Your task to perform on an android device: open the mobile data screen to see how much data has been used Image 0: 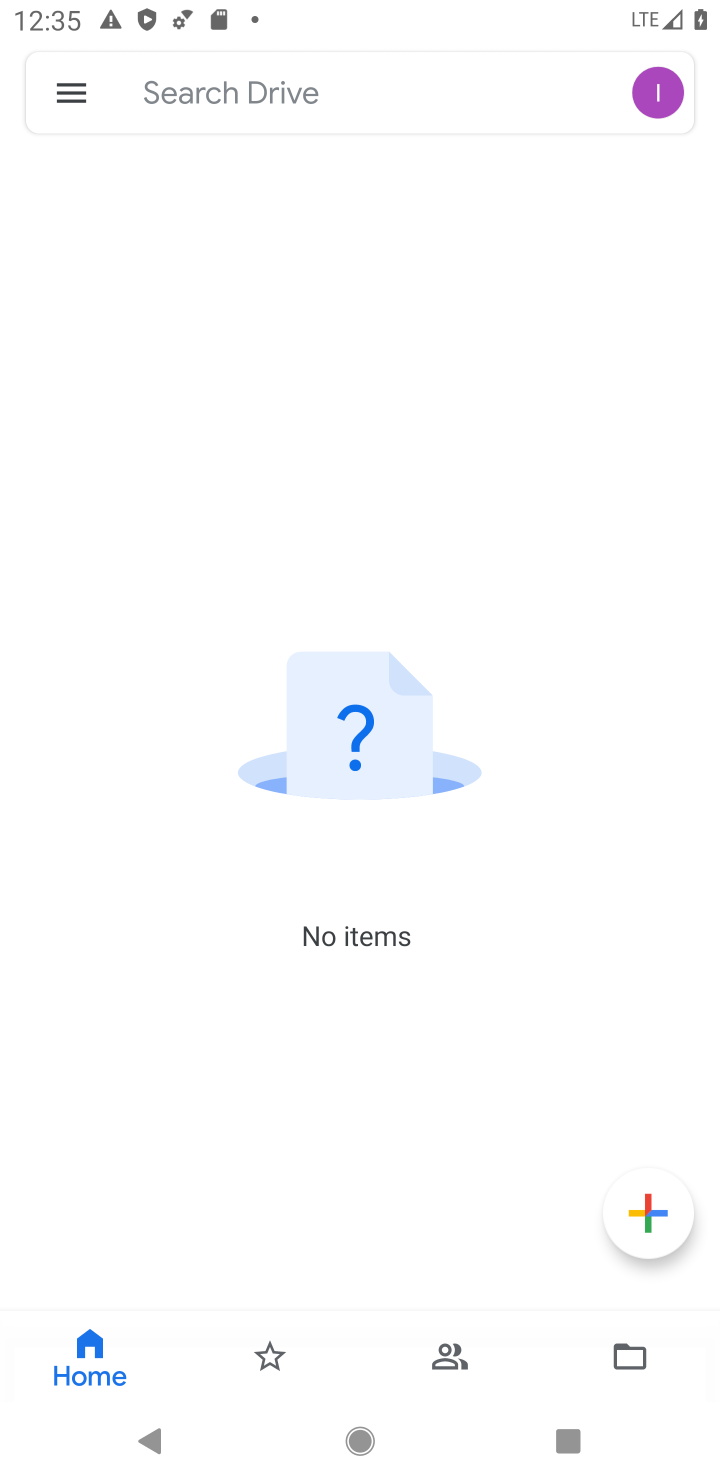
Step 0: click (349, 1444)
Your task to perform on an android device: open the mobile data screen to see how much data has been used Image 1: 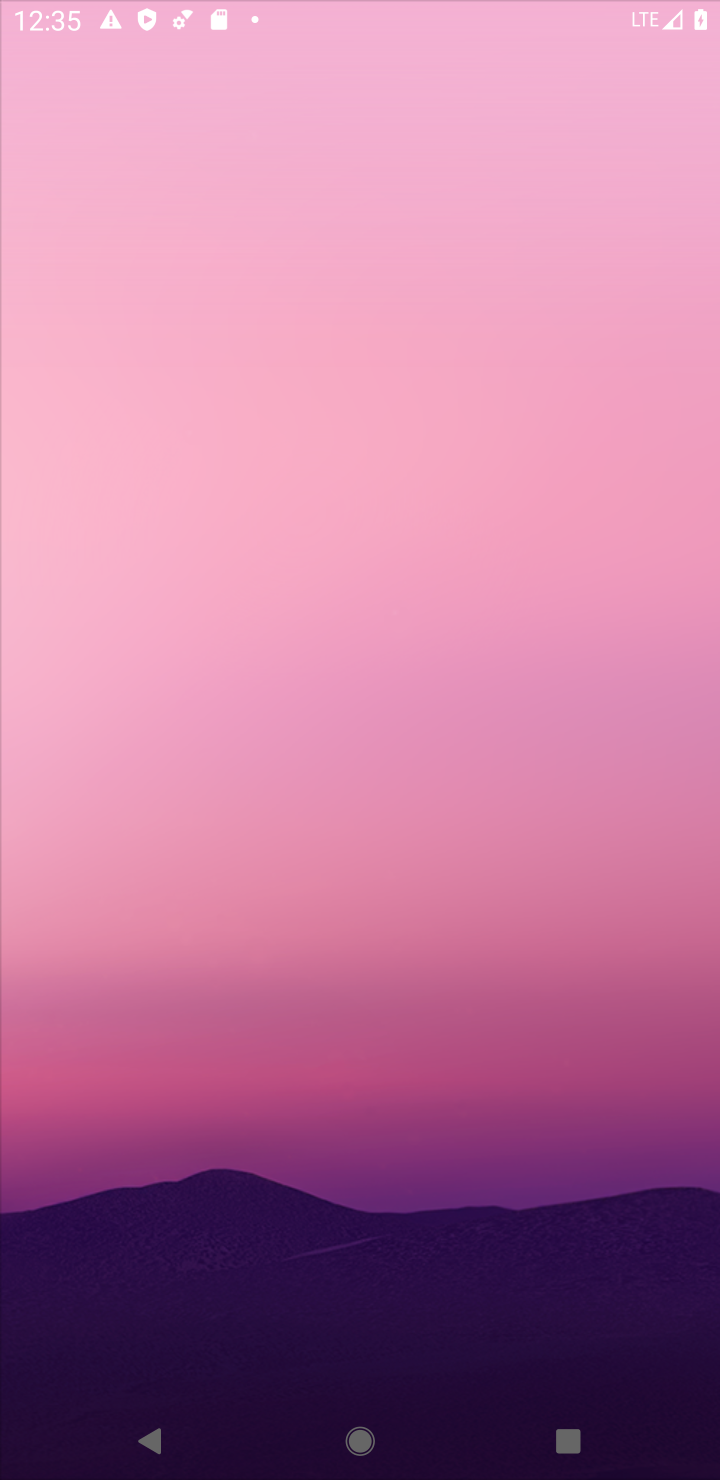
Step 1: click (360, 1445)
Your task to perform on an android device: open the mobile data screen to see how much data has been used Image 2: 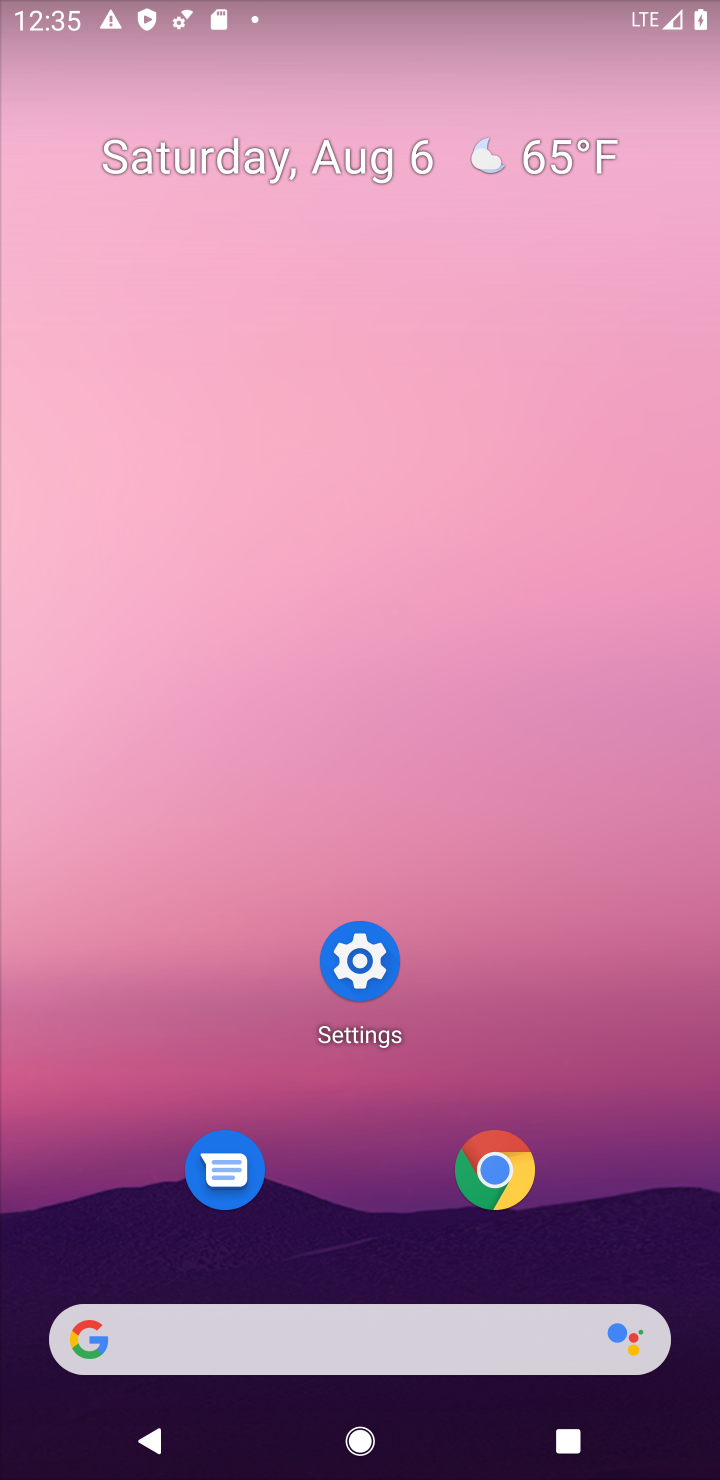
Step 2: click (355, 951)
Your task to perform on an android device: open the mobile data screen to see how much data has been used Image 3: 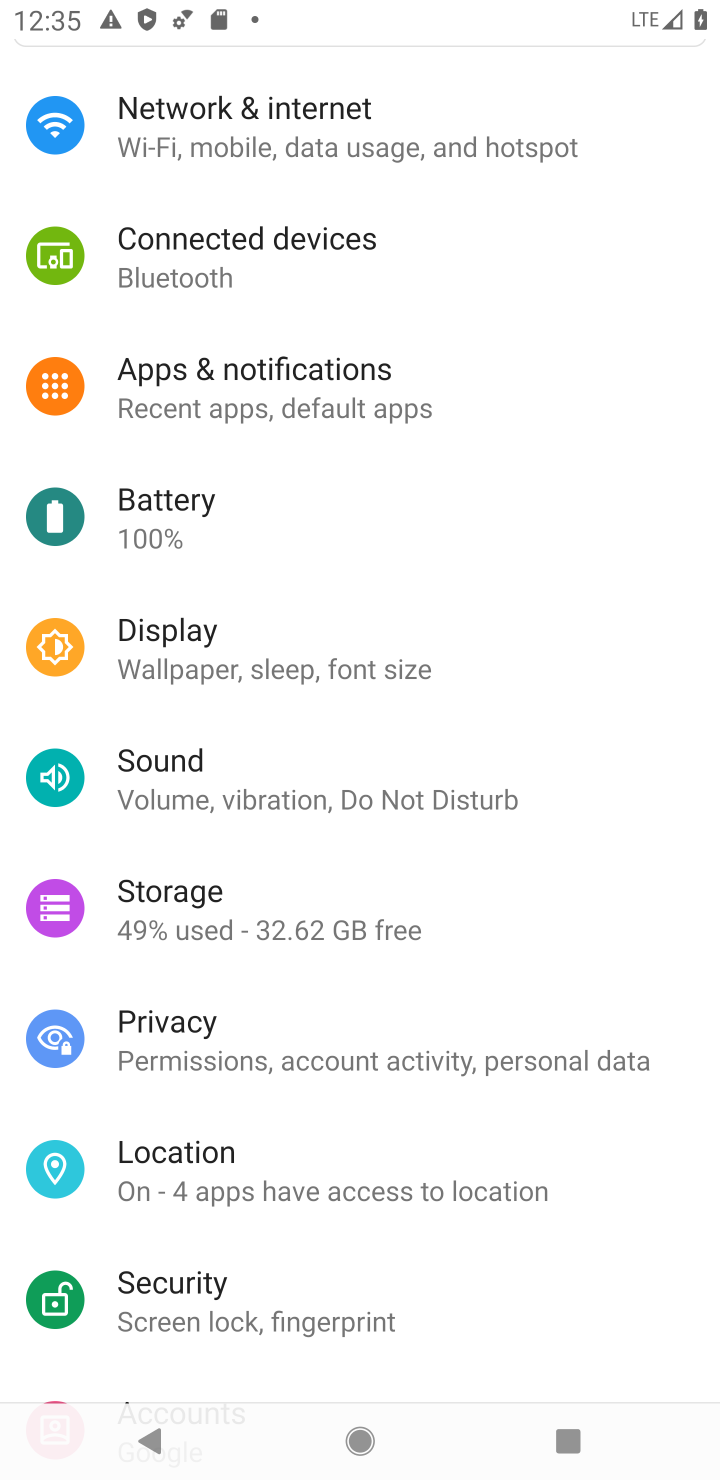
Step 3: click (374, 121)
Your task to perform on an android device: open the mobile data screen to see how much data has been used Image 4: 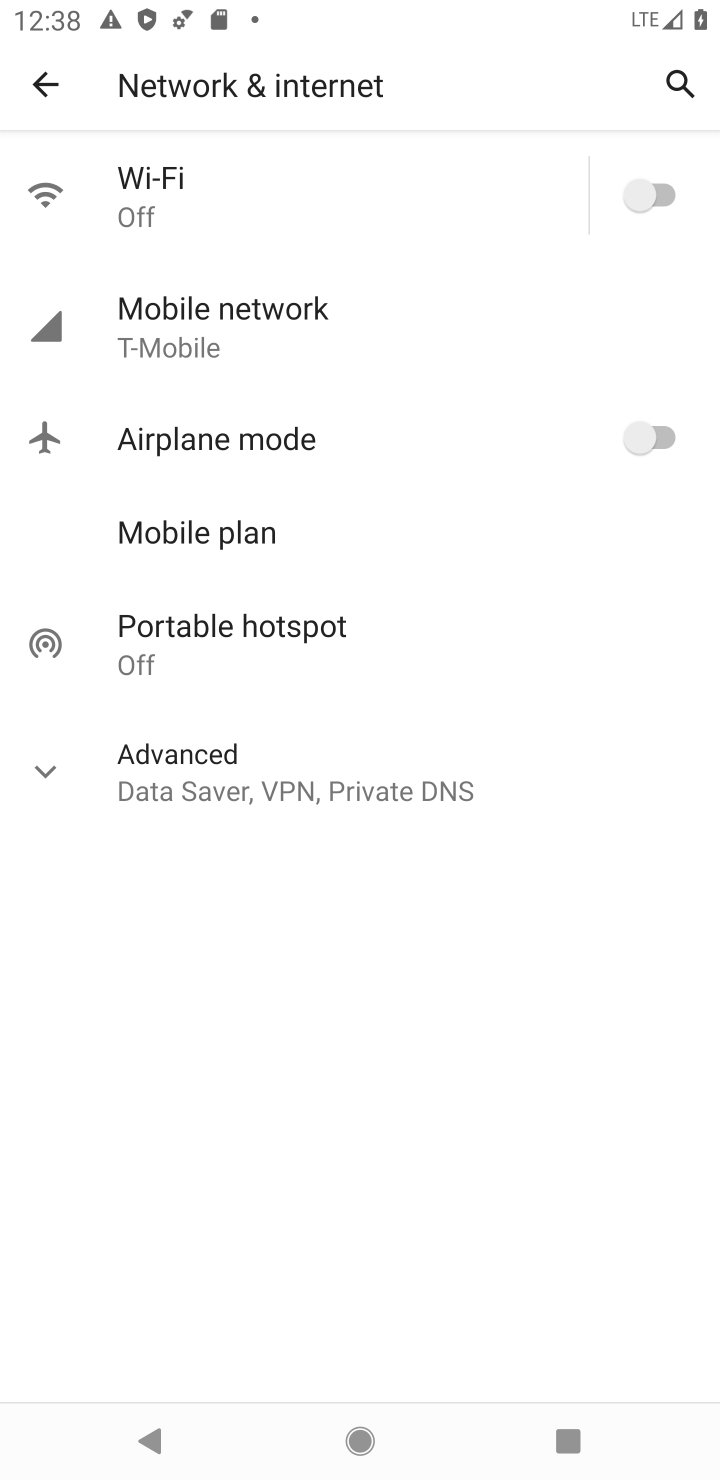
Step 4: click (193, 540)
Your task to perform on an android device: open the mobile data screen to see how much data has been used Image 5: 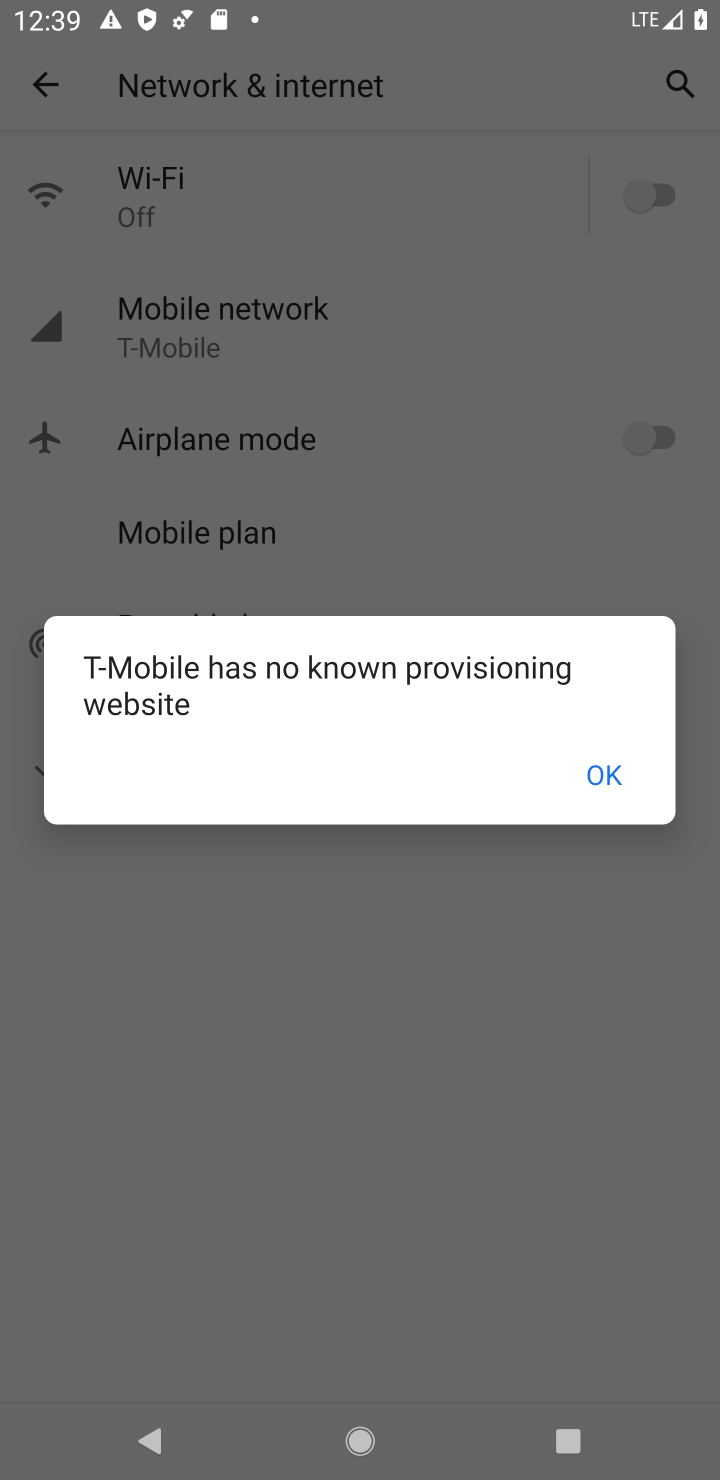
Step 5: click (602, 755)
Your task to perform on an android device: open the mobile data screen to see how much data has been used Image 6: 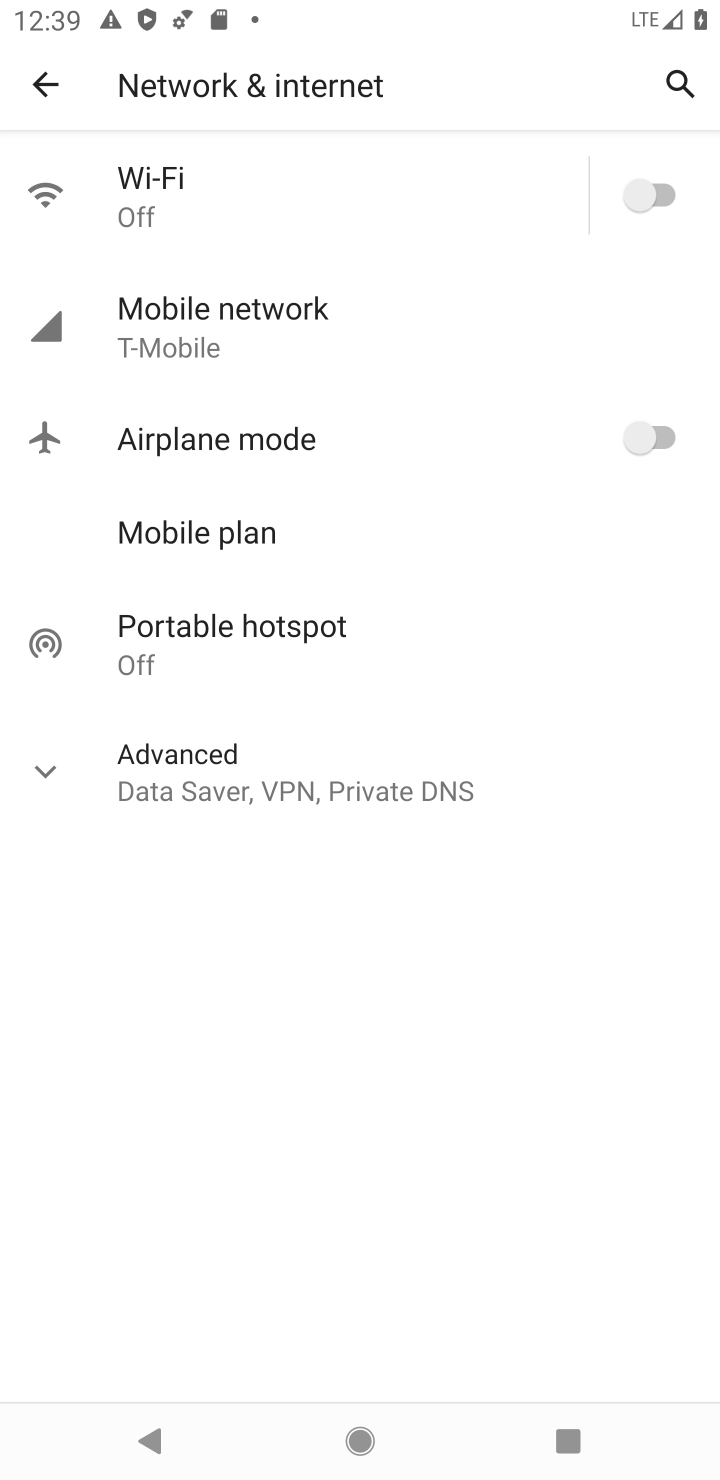
Step 6: click (267, 323)
Your task to perform on an android device: open the mobile data screen to see how much data has been used Image 7: 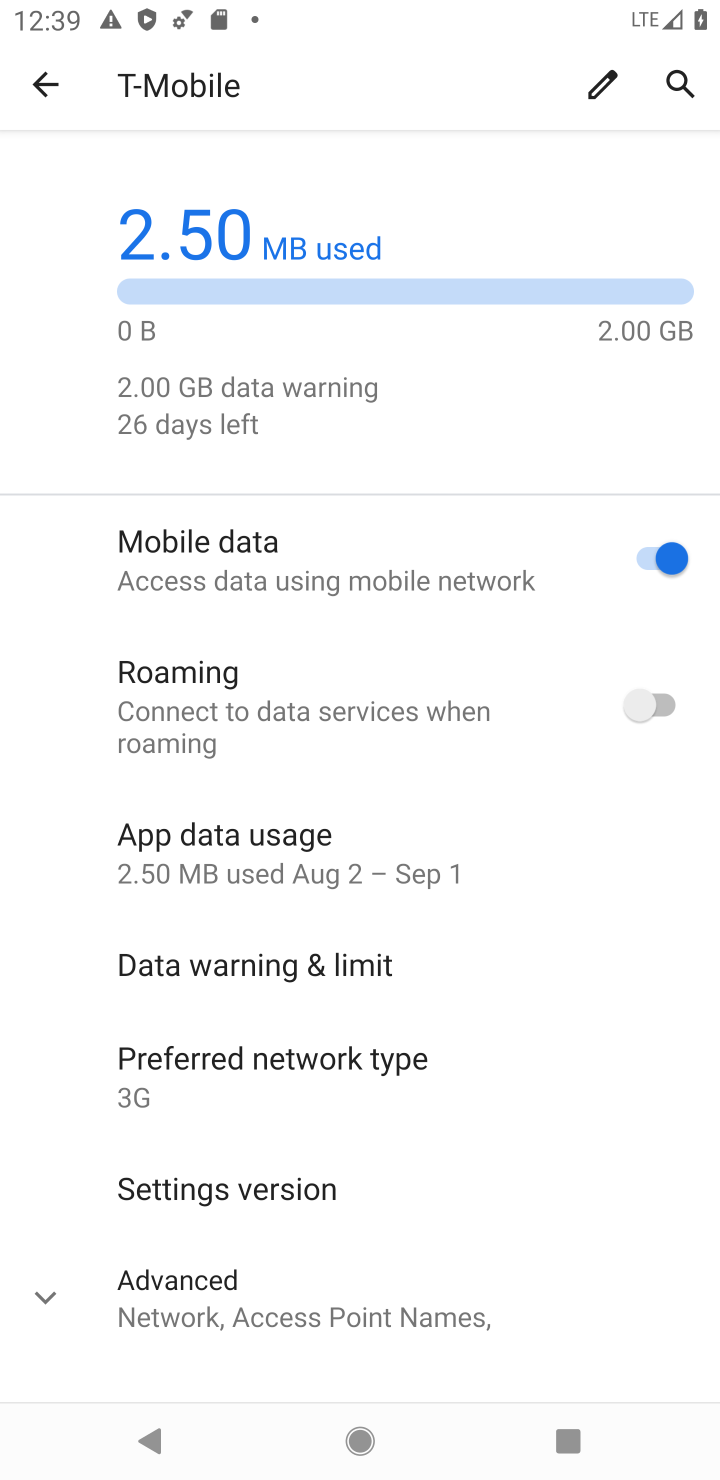
Step 7: click (324, 272)
Your task to perform on an android device: open the mobile data screen to see how much data has been used Image 8: 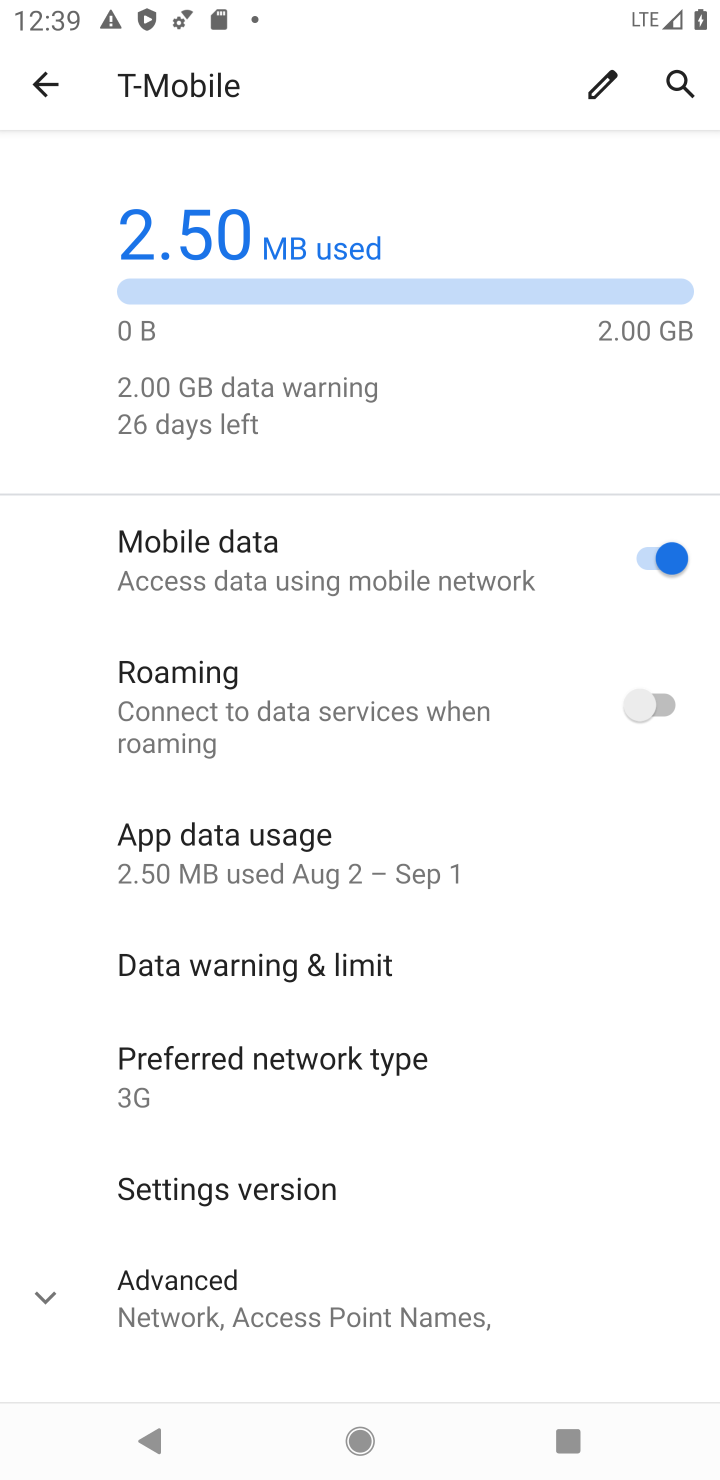
Step 8: task complete